Your task to perform on an android device: turn on the 24-hour format for clock Image 0: 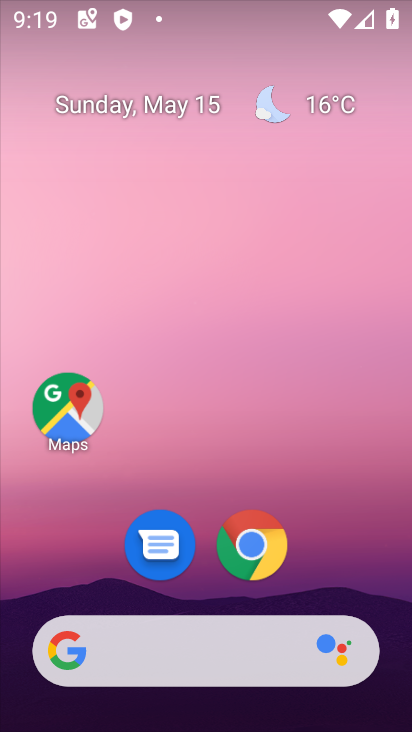
Step 0: drag from (325, 579) to (238, 293)
Your task to perform on an android device: turn on the 24-hour format for clock Image 1: 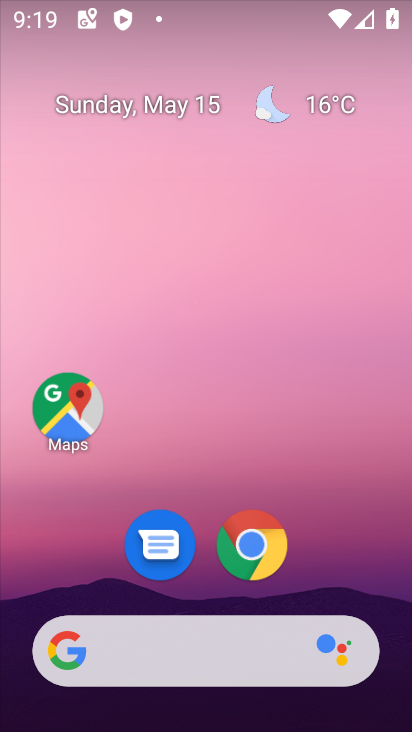
Step 1: drag from (322, 570) to (207, 151)
Your task to perform on an android device: turn on the 24-hour format for clock Image 2: 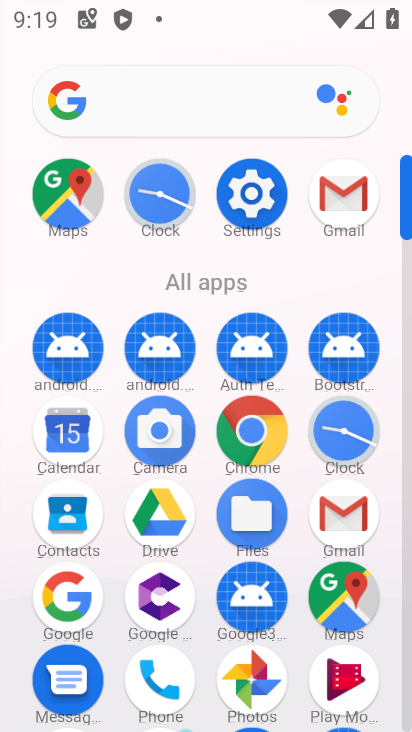
Step 2: click (158, 193)
Your task to perform on an android device: turn on the 24-hour format for clock Image 3: 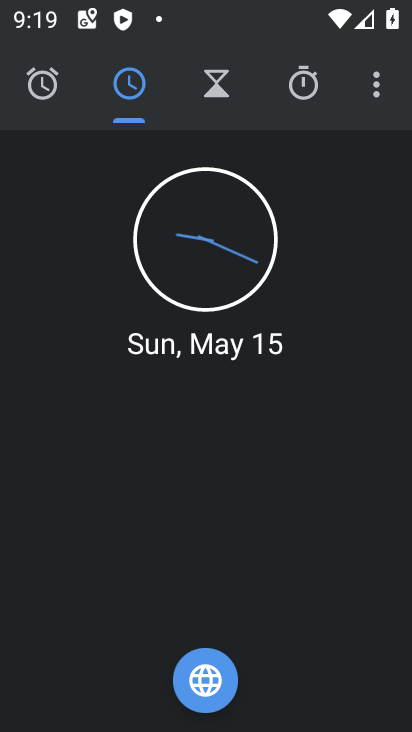
Step 3: click (376, 83)
Your task to perform on an android device: turn on the 24-hour format for clock Image 4: 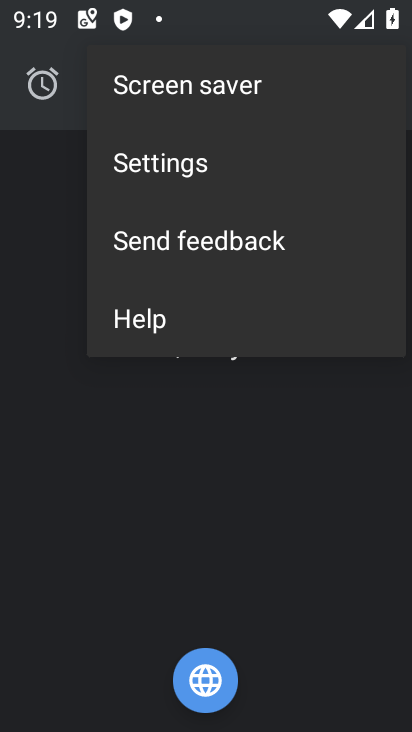
Step 4: click (175, 162)
Your task to perform on an android device: turn on the 24-hour format for clock Image 5: 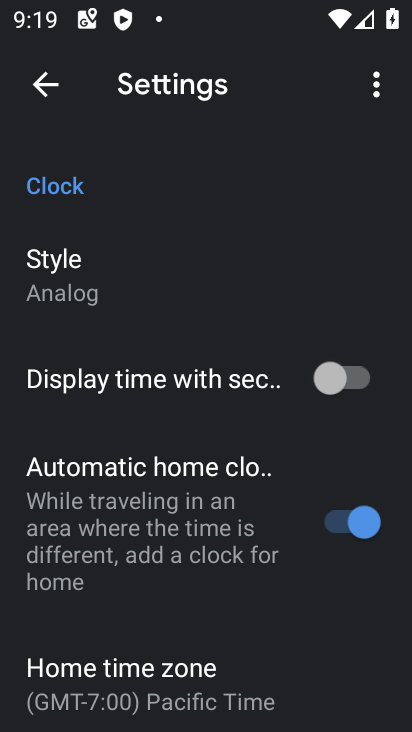
Step 5: drag from (127, 419) to (169, 300)
Your task to perform on an android device: turn on the 24-hour format for clock Image 6: 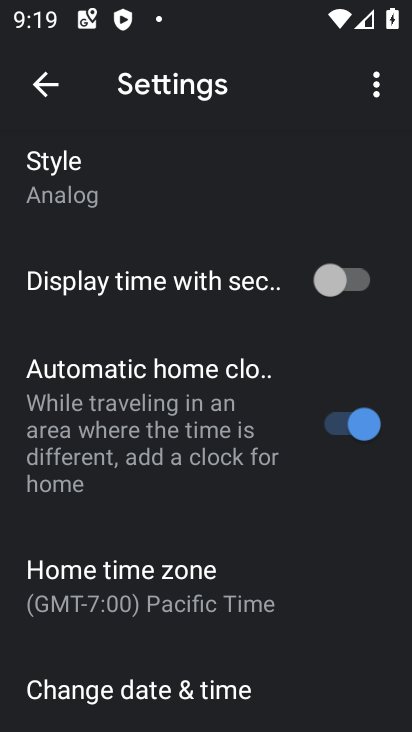
Step 6: drag from (141, 540) to (219, 354)
Your task to perform on an android device: turn on the 24-hour format for clock Image 7: 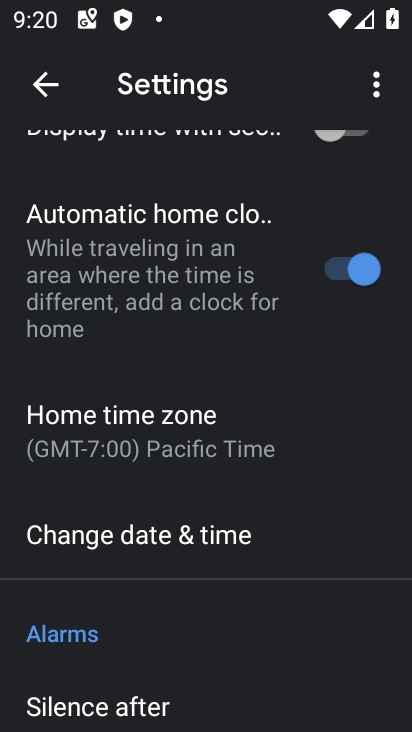
Step 7: click (144, 537)
Your task to perform on an android device: turn on the 24-hour format for clock Image 8: 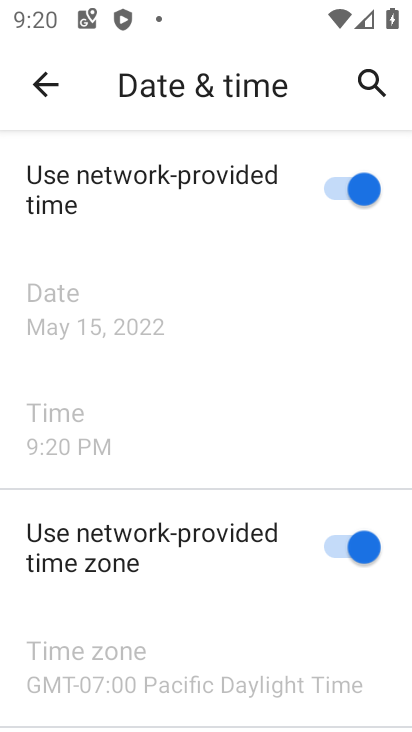
Step 8: drag from (168, 606) to (192, 383)
Your task to perform on an android device: turn on the 24-hour format for clock Image 9: 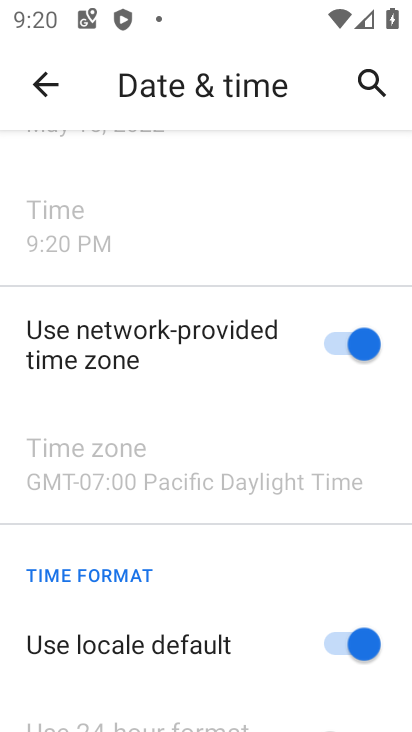
Step 9: drag from (194, 609) to (199, 446)
Your task to perform on an android device: turn on the 24-hour format for clock Image 10: 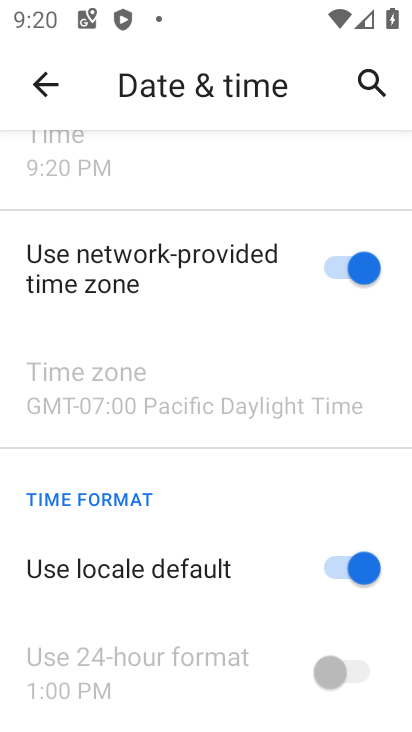
Step 10: click (366, 568)
Your task to perform on an android device: turn on the 24-hour format for clock Image 11: 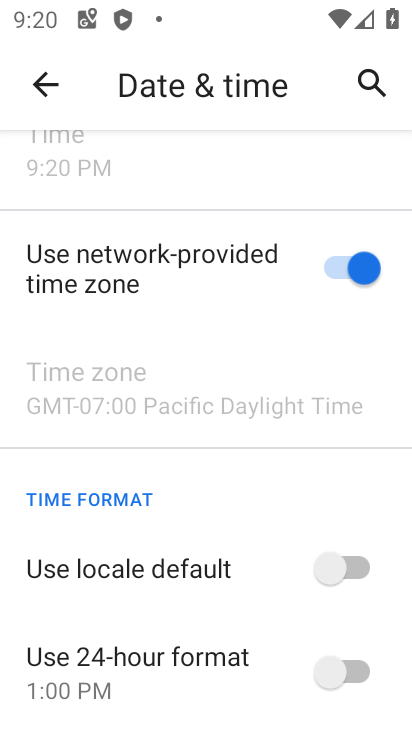
Step 11: click (327, 673)
Your task to perform on an android device: turn on the 24-hour format for clock Image 12: 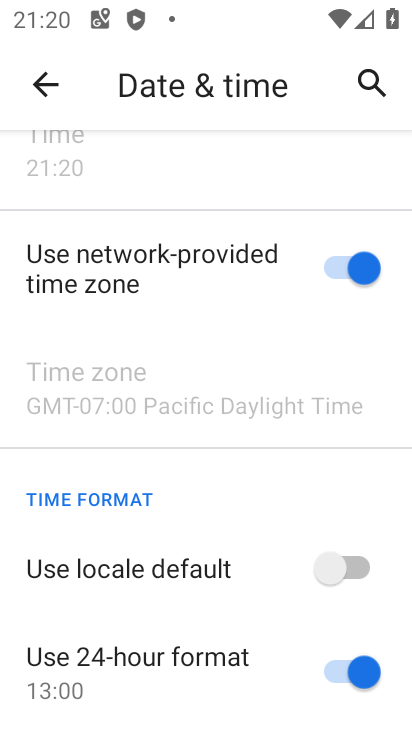
Step 12: task complete